Your task to perform on an android device: Open Youtube and go to "Your channel" Image 0: 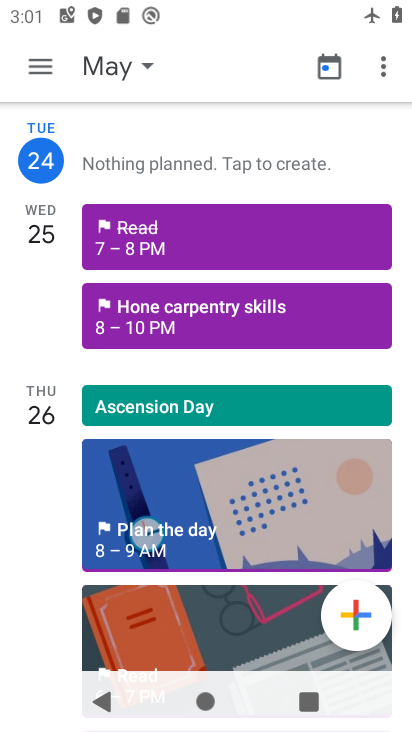
Step 0: press home button
Your task to perform on an android device: Open Youtube and go to "Your channel" Image 1: 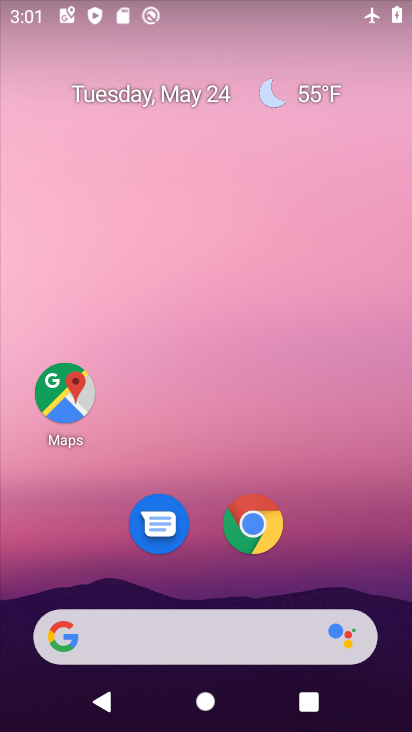
Step 1: drag from (195, 531) to (226, 82)
Your task to perform on an android device: Open Youtube and go to "Your channel" Image 2: 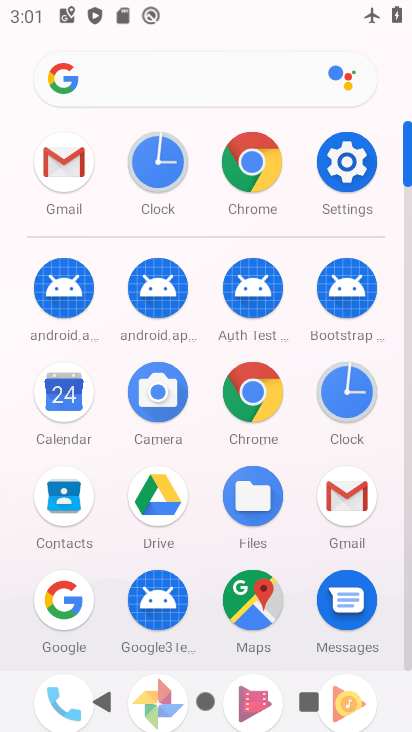
Step 2: drag from (206, 542) to (218, 129)
Your task to perform on an android device: Open Youtube and go to "Your channel" Image 3: 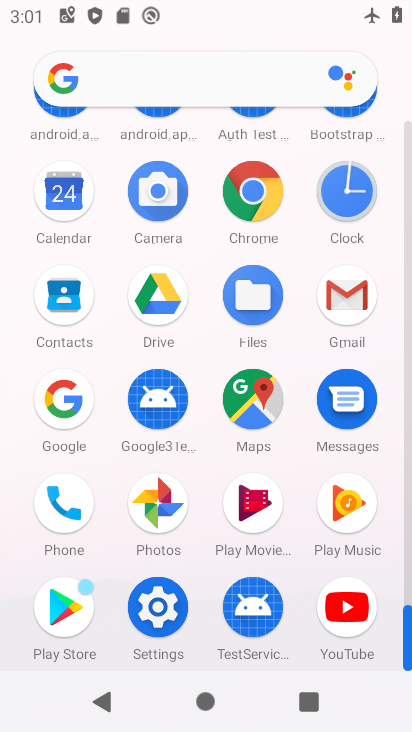
Step 3: click (343, 597)
Your task to perform on an android device: Open Youtube and go to "Your channel" Image 4: 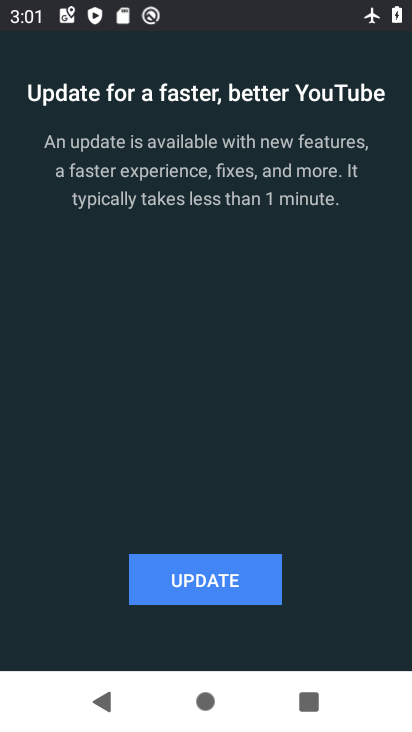
Step 4: click (263, 580)
Your task to perform on an android device: Open Youtube and go to "Your channel" Image 5: 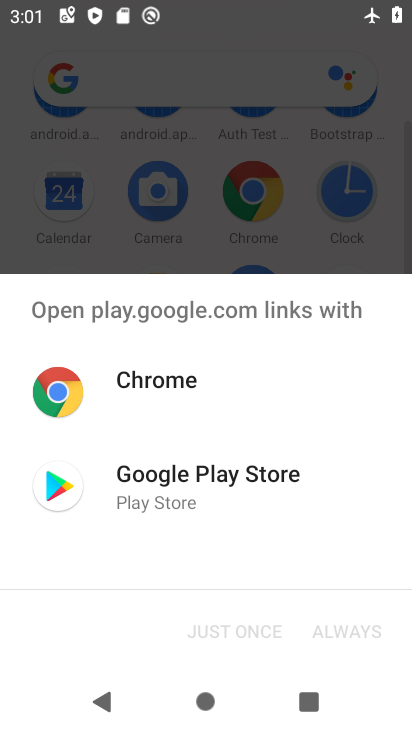
Step 5: click (206, 483)
Your task to perform on an android device: Open Youtube and go to "Your channel" Image 6: 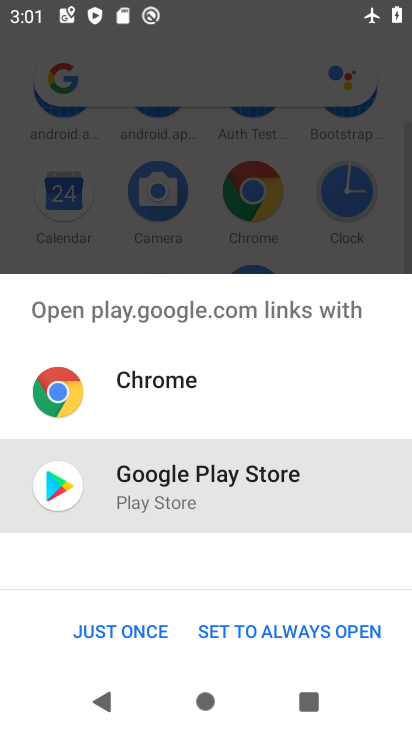
Step 6: click (120, 631)
Your task to perform on an android device: Open Youtube and go to "Your channel" Image 7: 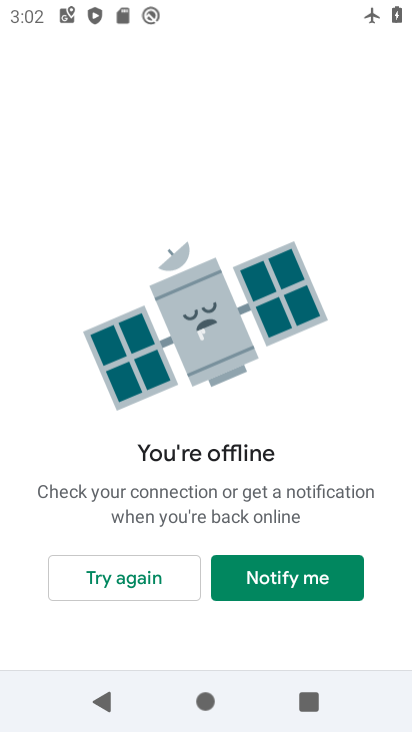
Step 7: task complete